Your task to perform on an android device: turn off wifi Image 0: 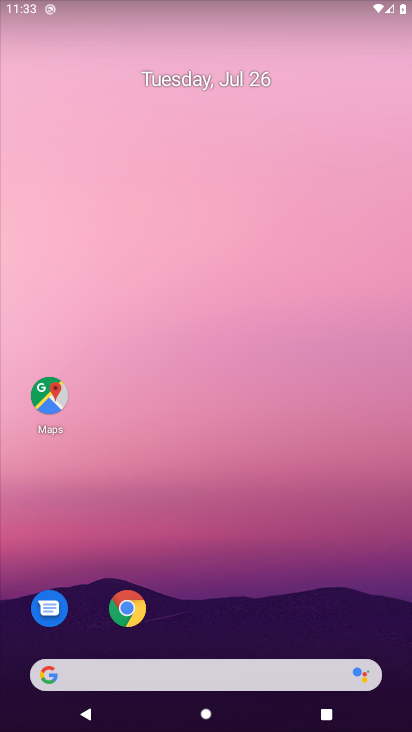
Step 0: press home button
Your task to perform on an android device: turn off wifi Image 1: 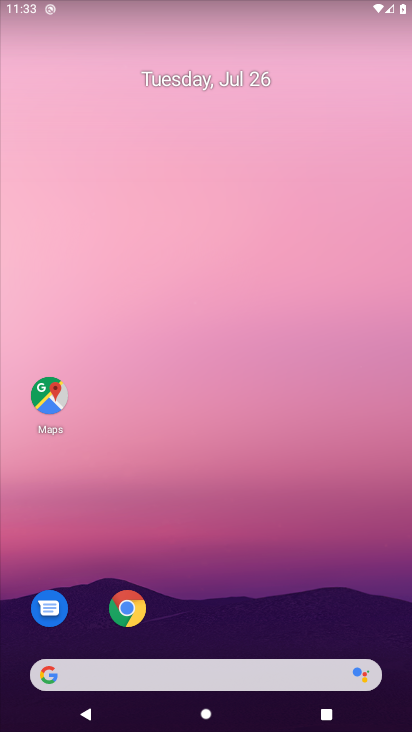
Step 1: drag from (348, 595) to (349, 137)
Your task to perform on an android device: turn off wifi Image 2: 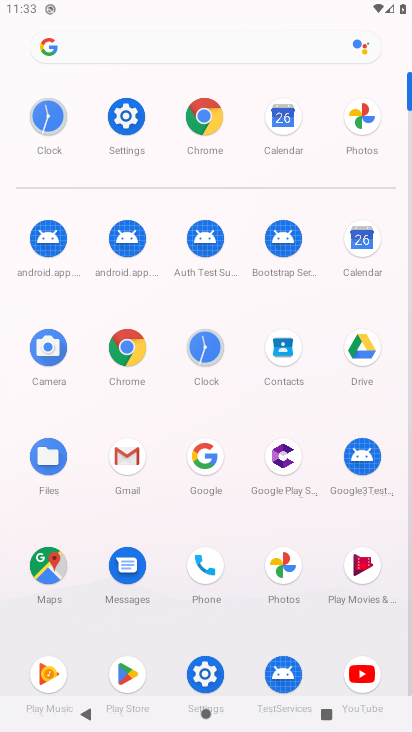
Step 2: click (126, 110)
Your task to perform on an android device: turn off wifi Image 3: 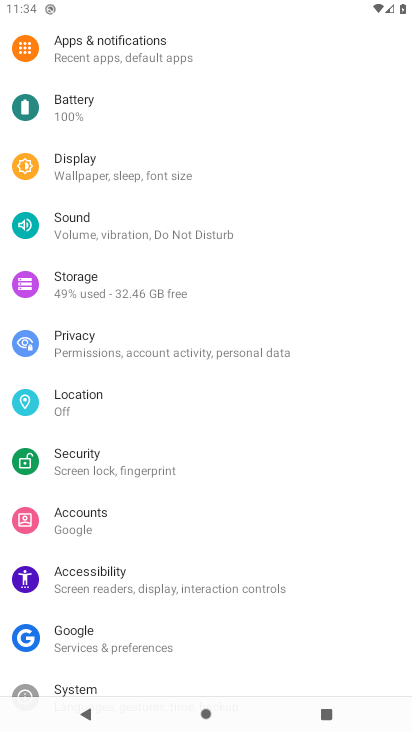
Step 3: drag from (234, 95) to (261, 401)
Your task to perform on an android device: turn off wifi Image 4: 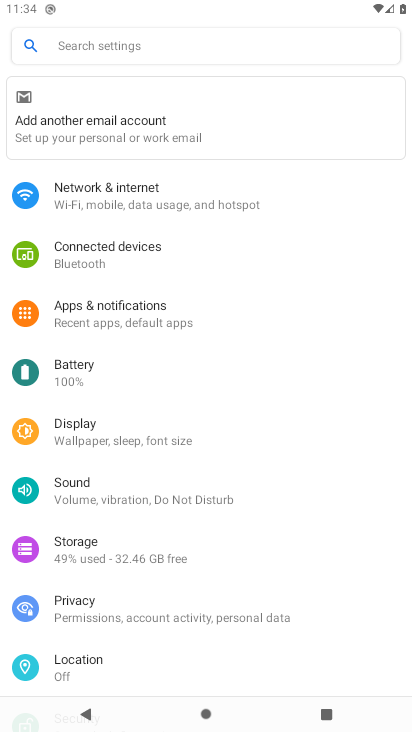
Step 4: click (190, 185)
Your task to perform on an android device: turn off wifi Image 5: 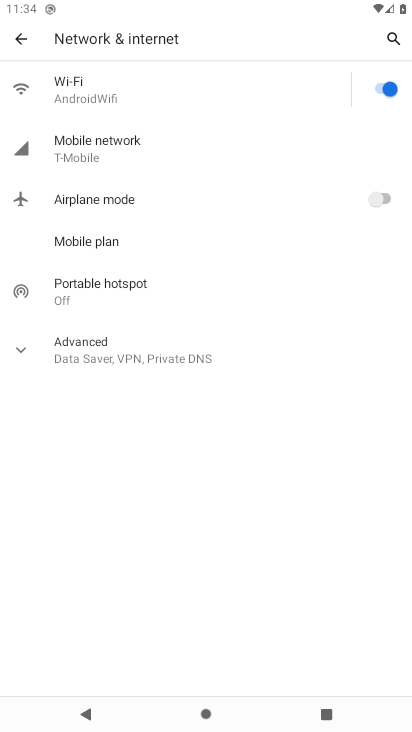
Step 5: click (386, 92)
Your task to perform on an android device: turn off wifi Image 6: 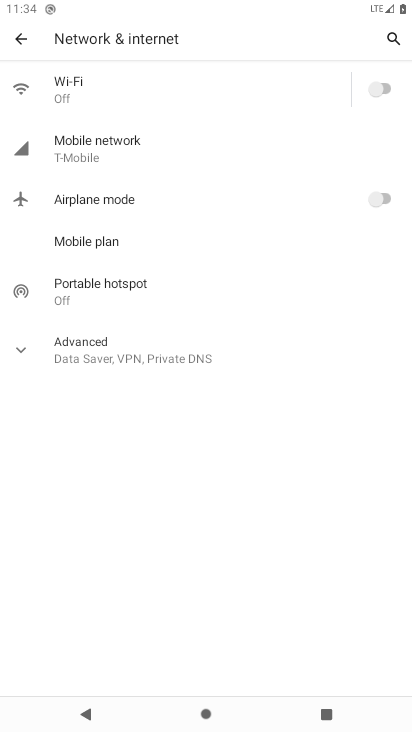
Step 6: task complete